Your task to perform on an android device: Go to sound settings Image 0: 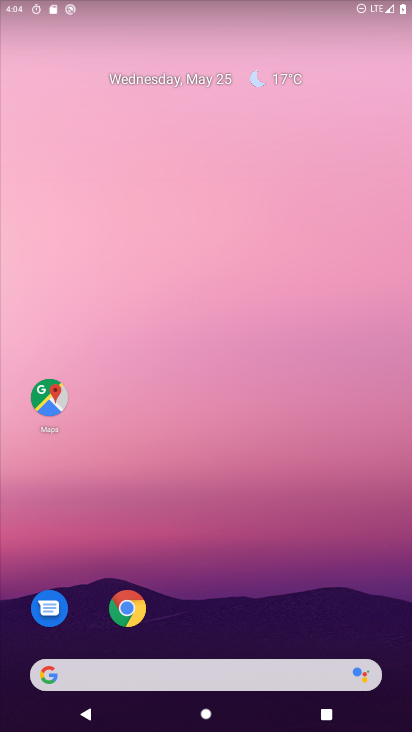
Step 0: drag from (269, 543) to (190, 119)
Your task to perform on an android device: Go to sound settings Image 1: 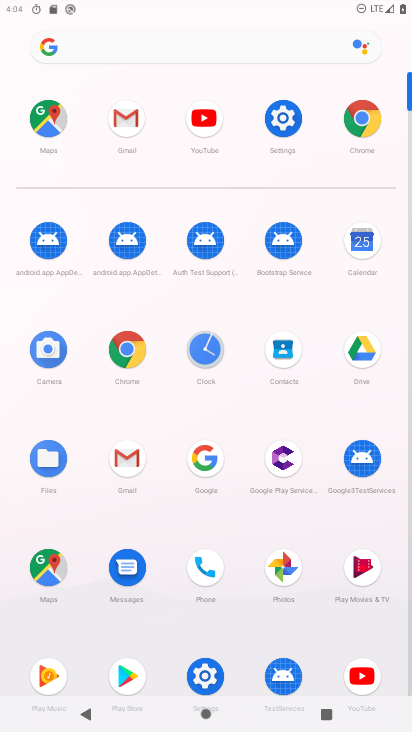
Step 1: click (204, 668)
Your task to perform on an android device: Go to sound settings Image 2: 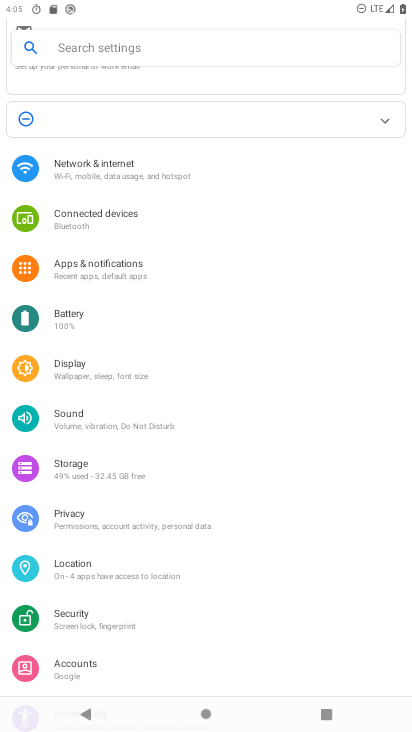
Step 2: click (89, 413)
Your task to perform on an android device: Go to sound settings Image 3: 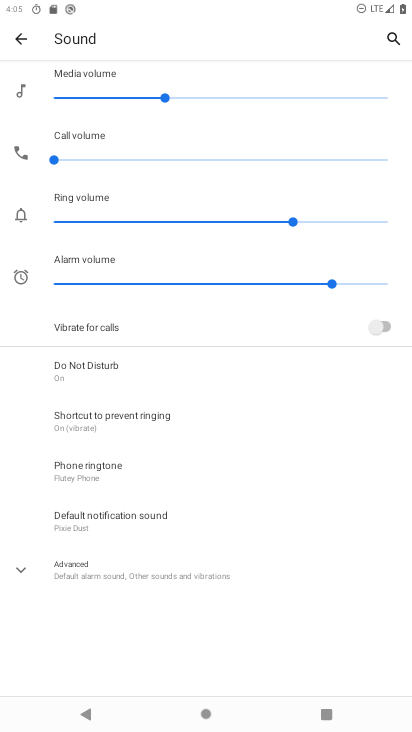
Step 3: task complete